Your task to perform on an android device: Go to Amazon Image 0: 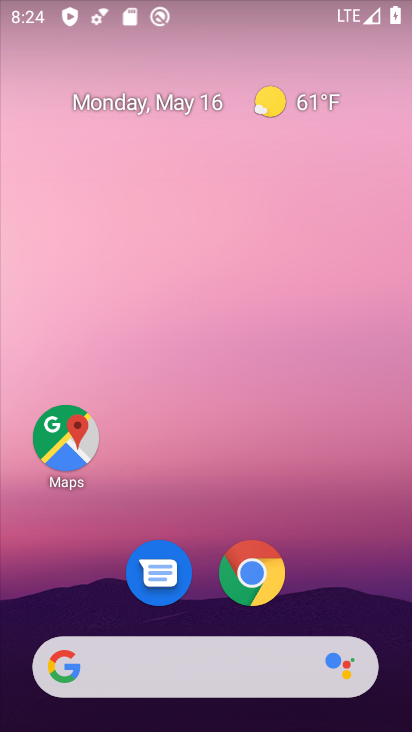
Step 0: click (248, 573)
Your task to perform on an android device: Go to Amazon Image 1: 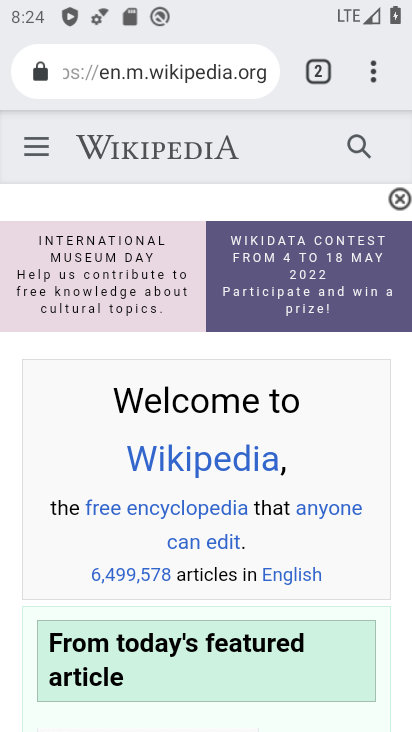
Step 1: click (373, 80)
Your task to perform on an android device: Go to Amazon Image 2: 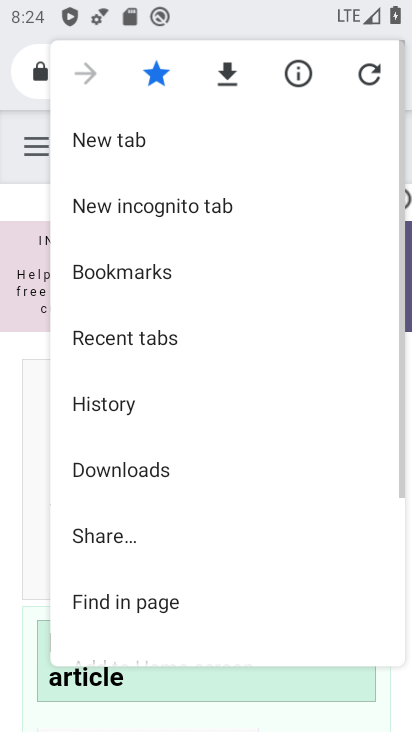
Step 2: click (124, 140)
Your task to perform on an android device: Go to Amazon Image 3: 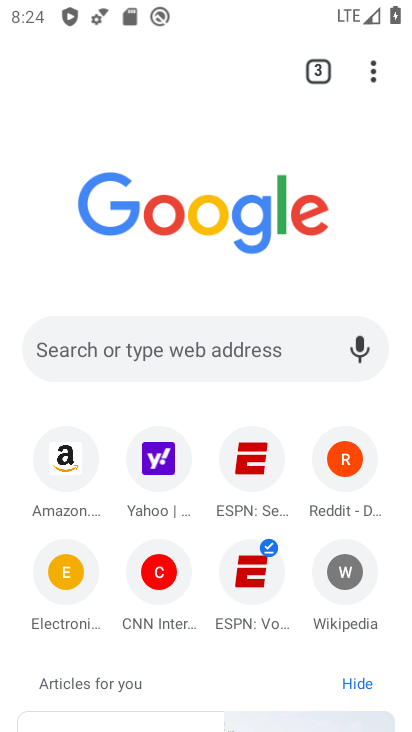
Step 3: click (160, 351)
Your task to perform on an android device: Go to Amazon Image 4: 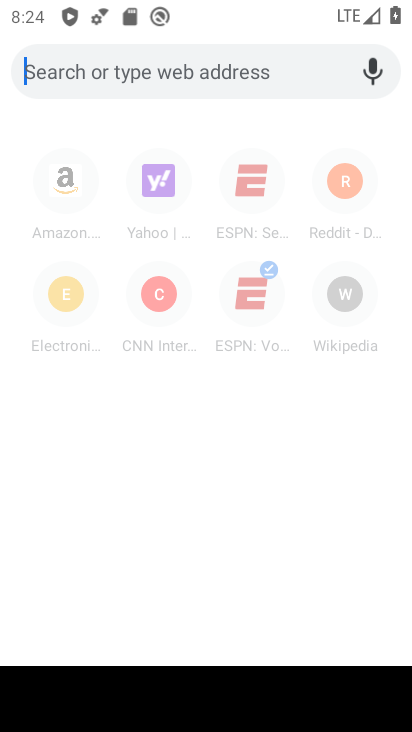
Step 4: type "Amazon"
Your task to perform on an android device: Go to Amazon Image 5: 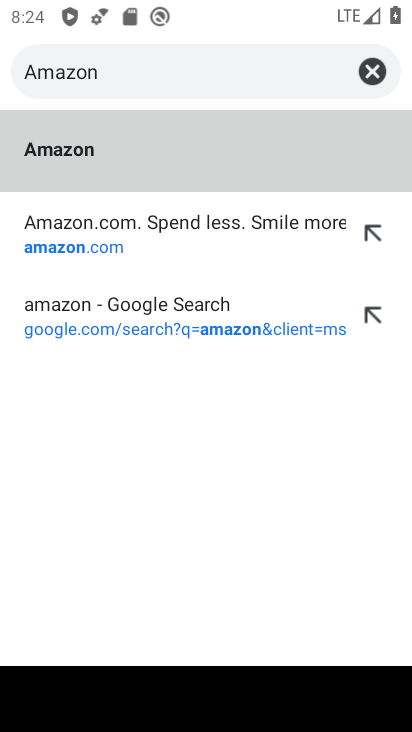
Step 5: click (93, 166)
Your task to perform on an android device: Go to Amazon Image 6: 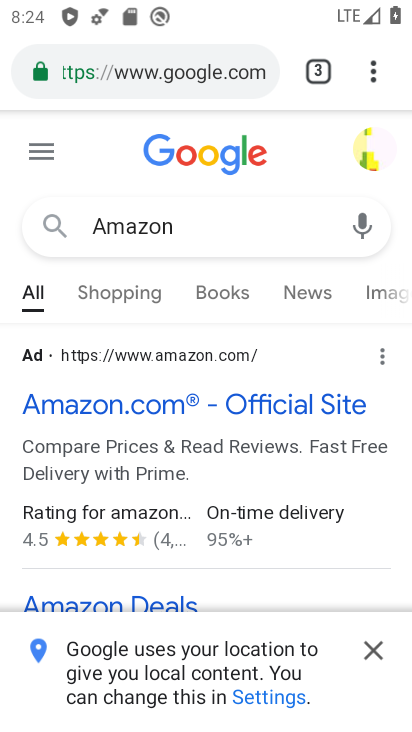
Step 6: click (118, 406)
Your task to perform on an android device: Go to Amazon Image 7: 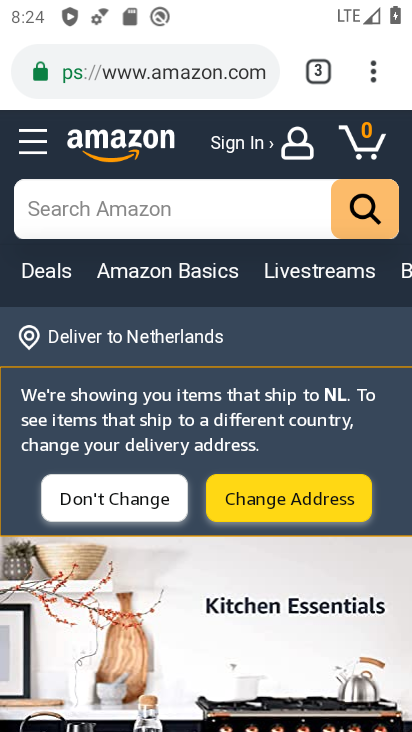
Step 7: task complete